Your task to perform on an android device: turn on bluetooth scan Image 0: 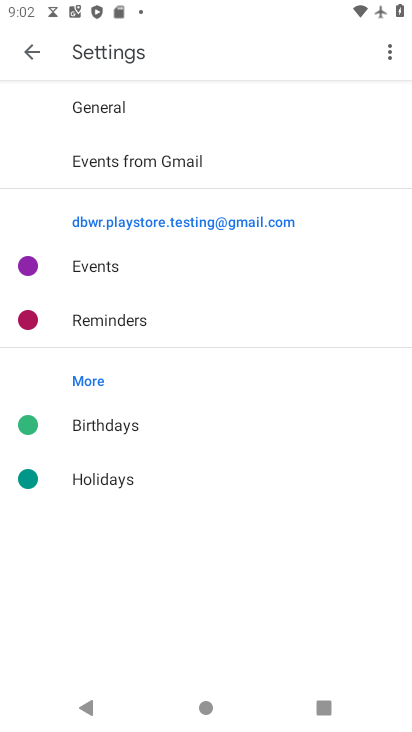
Step 0: press home button
Your task to perform on an android device: turn on bluetooth scan Image 1: 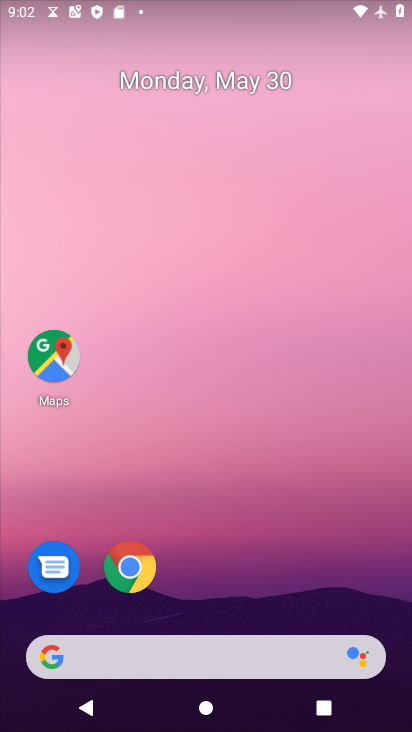
Step 1: drag from (249, 614) to (213, 118)
Your task to perform on an android device: turn on bluetooth scan Image 2: 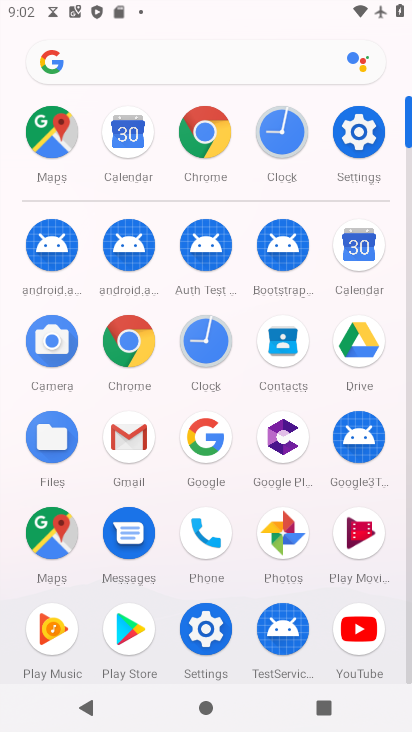
Step 2: click (357, 135)
Your task to perform on an android device: turn on bluetooth scan Image 3: 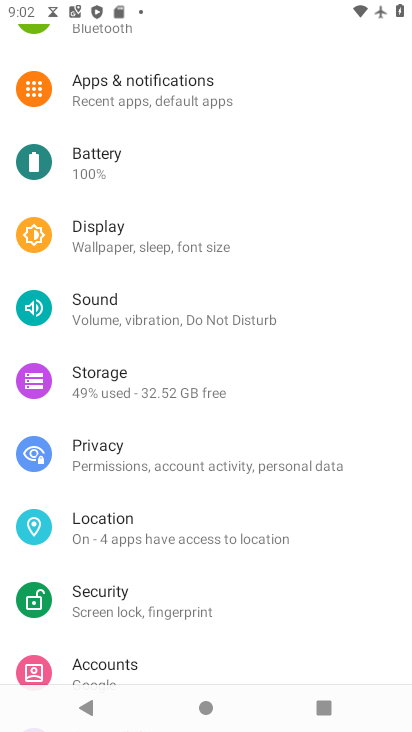
Step 3: drag from (181, 181) to (171, 139)
Your task to perform on an android device: turn on bluetooth scan Image 4: 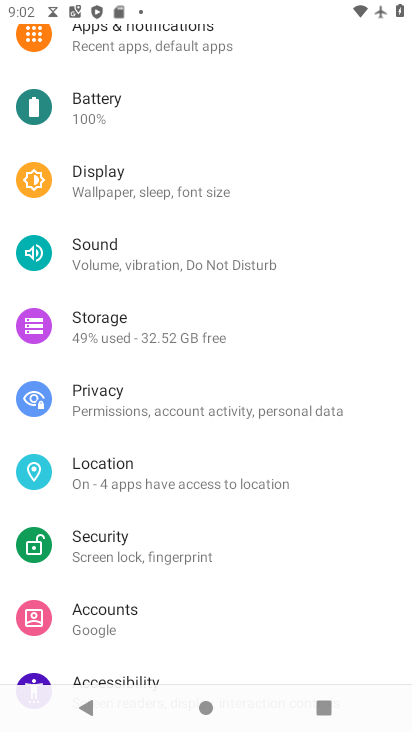
Step 4: click (175, 467)
Your task to perform on an android device: turn on bluetooth scan Image 5: 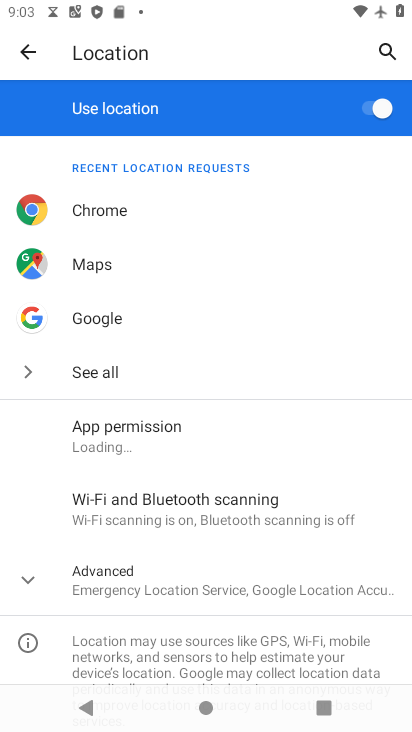
Step 5: click (228, 502)
Your task to perform on an android device: turn on bluetooth scan Image 6: 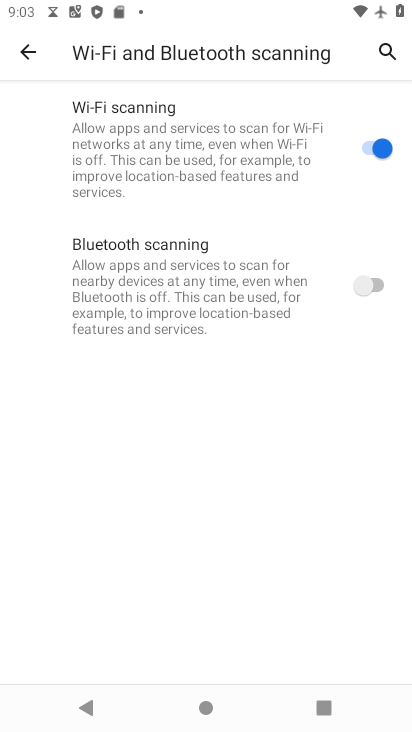
Step 6: click (384, 289)
Your task to perform on an android device: turn on bluetooth scan Image 7: 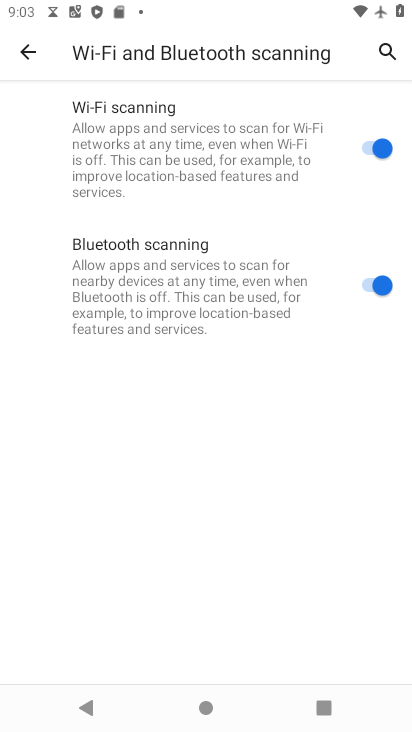
Step 7: task complete